Your task to perform on an android device: Open Chrome and go to the settings page Image 0: 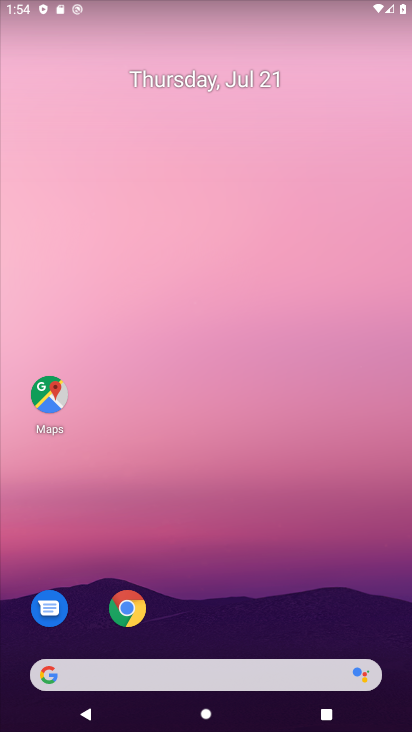
Step 0: click (128, 609)
Your task to perform on an android device: Open Chrome and go to the settings page Image 1: 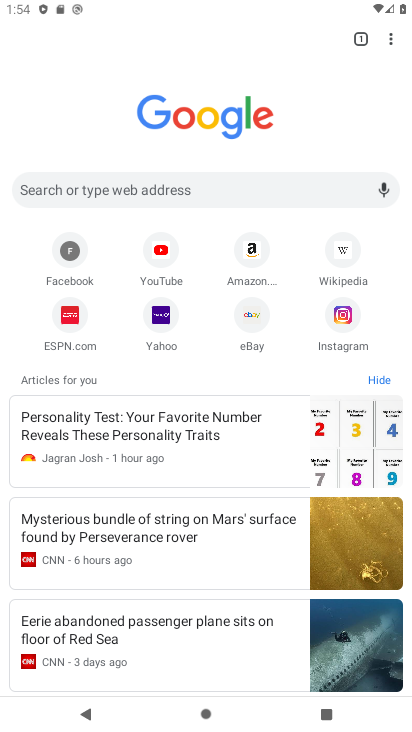
Step 1: click (389, 38)
Your task to perform on an android device: Open Chrome and go to the settings page Image 2: 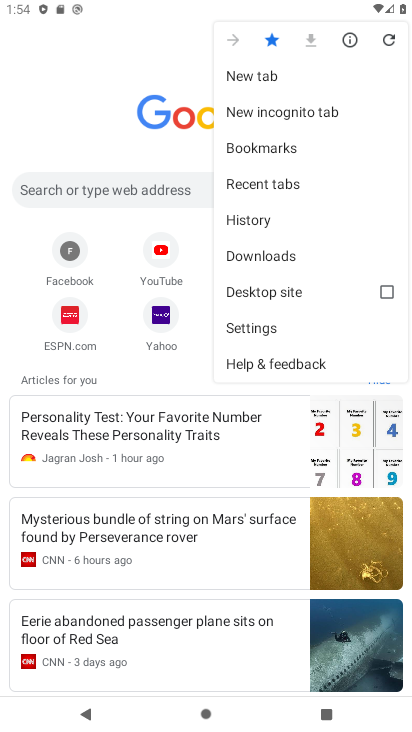
Step 2: click (260, 326)
Your task to perform on an android device: Open Chrome and go to the settings page Image 3: 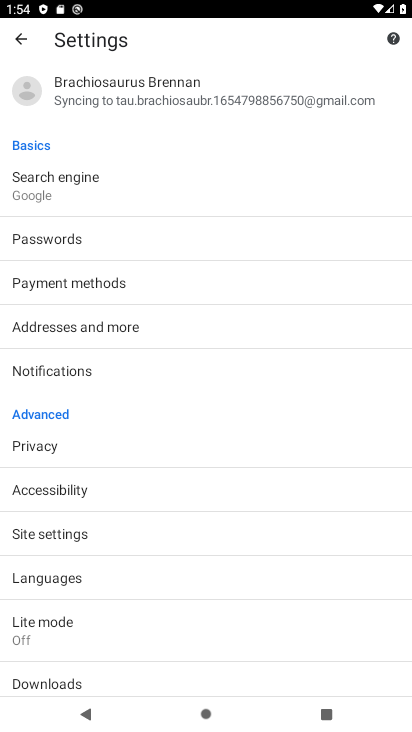
Step 3: task complete